Your task to perform on an android device: Set the phone to "Do not disturb". Image 0: 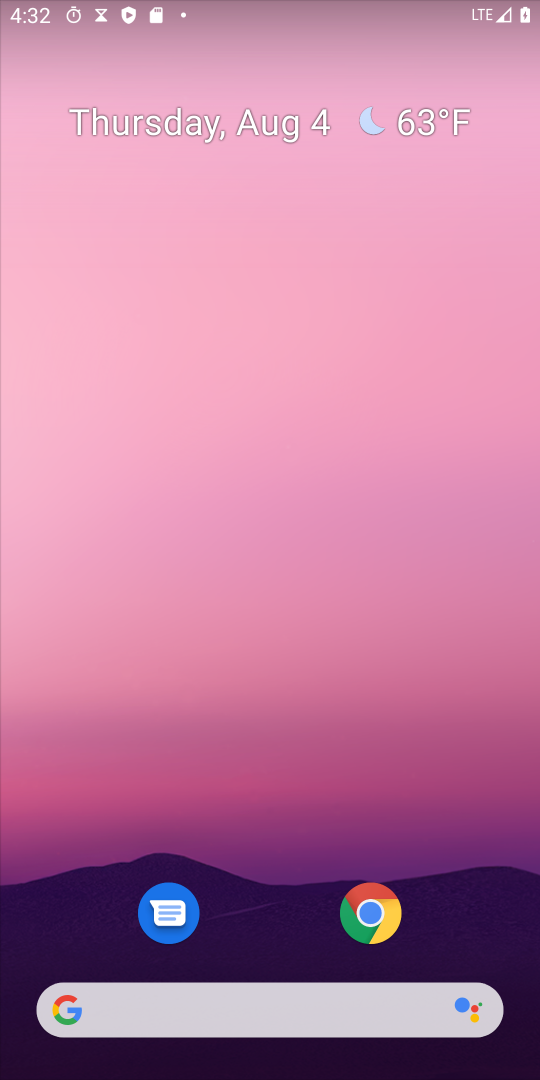
Step 0: drag from (331, 1041) to (228, 107)
Your task to perform on an android device: Set the phone to "Do not disturb". Image 1: 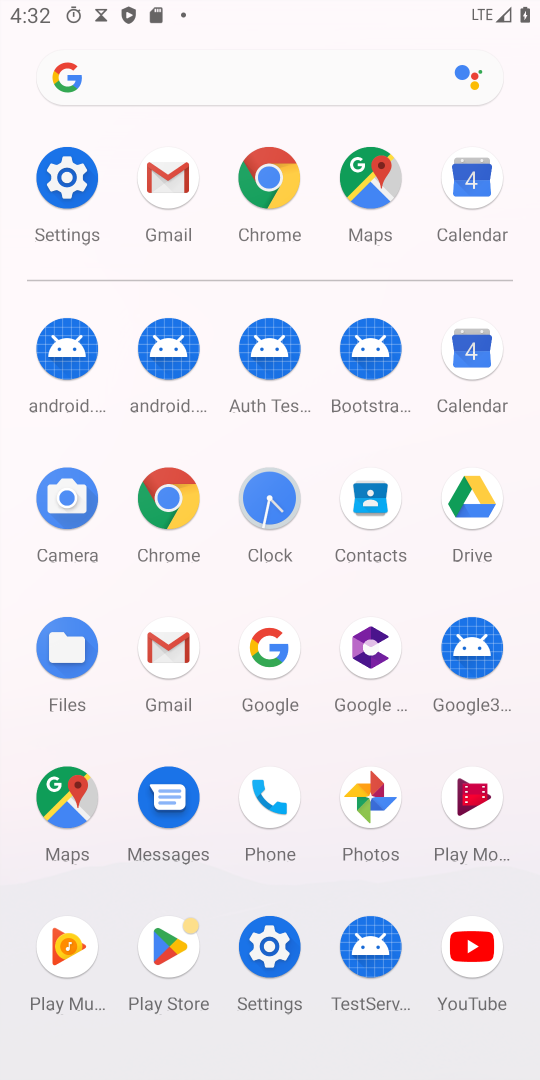
Step 1: click (76, 153)
Your task to perform on an android device: Set the phone to "Do not disturb". Image 2: 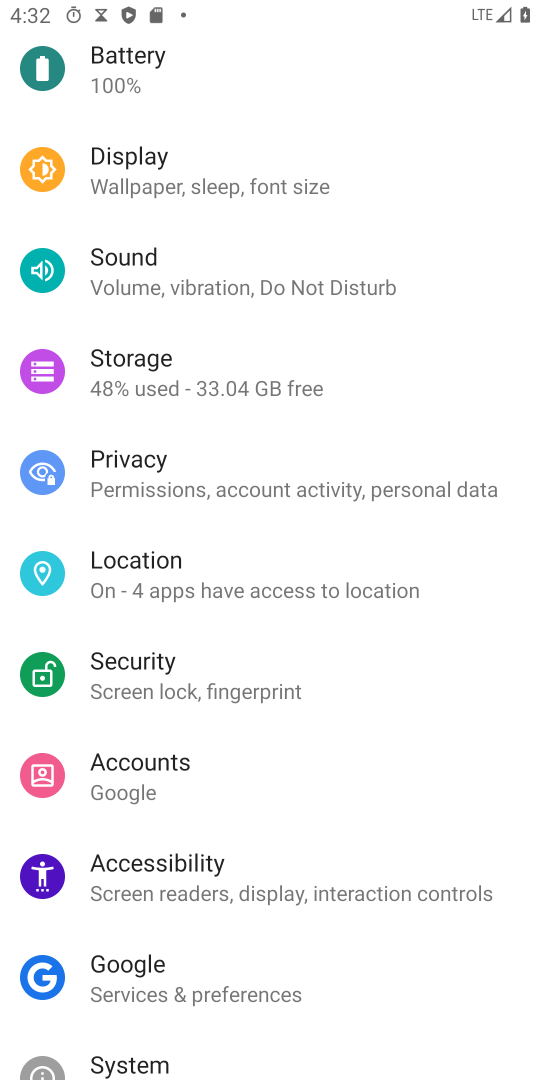
Step 2: click (258, 263)
Your task to perform on an android device: Set the phone to "Do not disturb". Image 3: 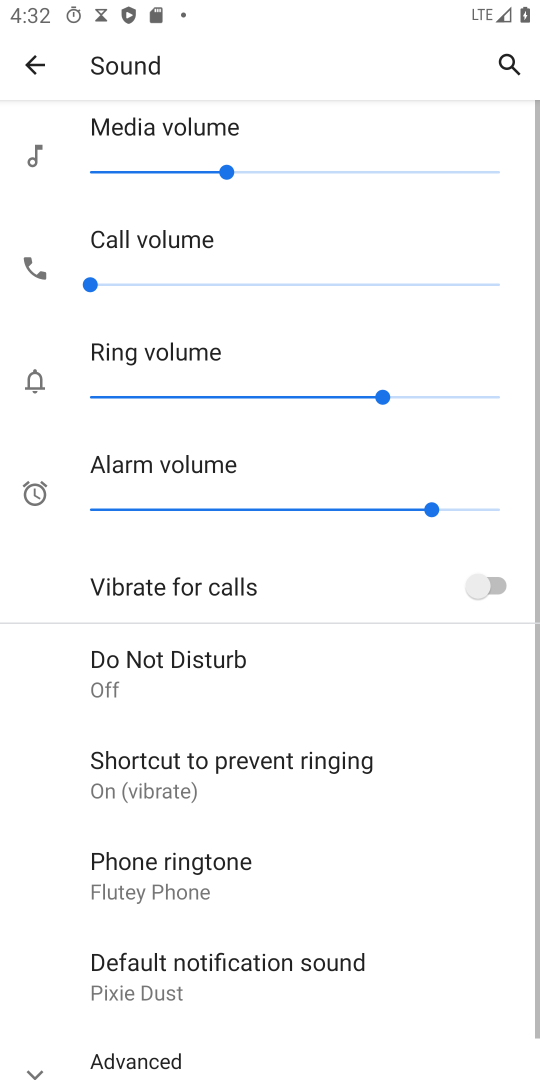
Step 3: click (267, 658)
Your task to perform on an android device: Set the phone to "Do not disturb". Image 4: 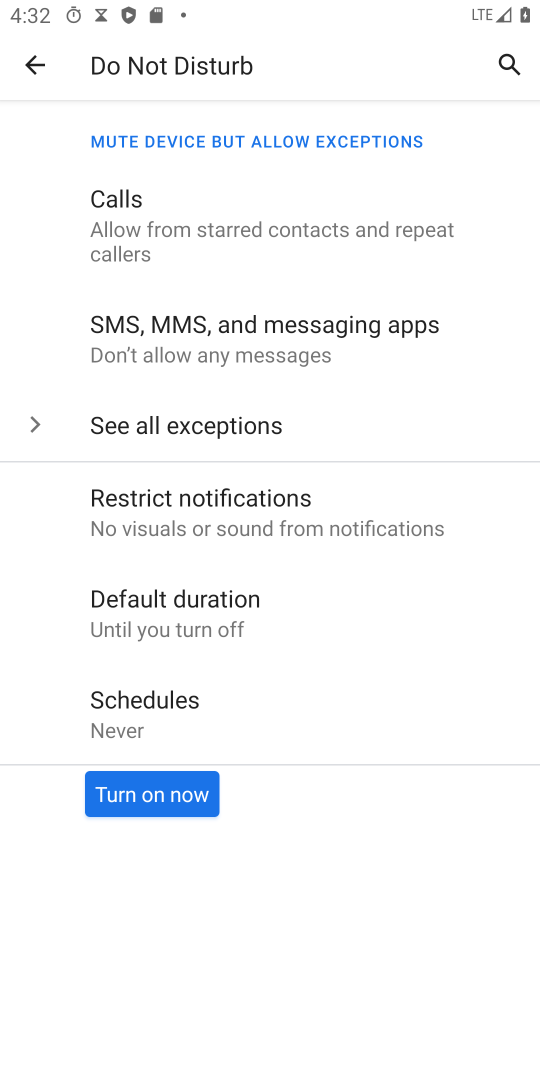
Step 4: click (158, 789)
Your task to perform on an android device: Set the phone to "Do not disturb". Image 5: 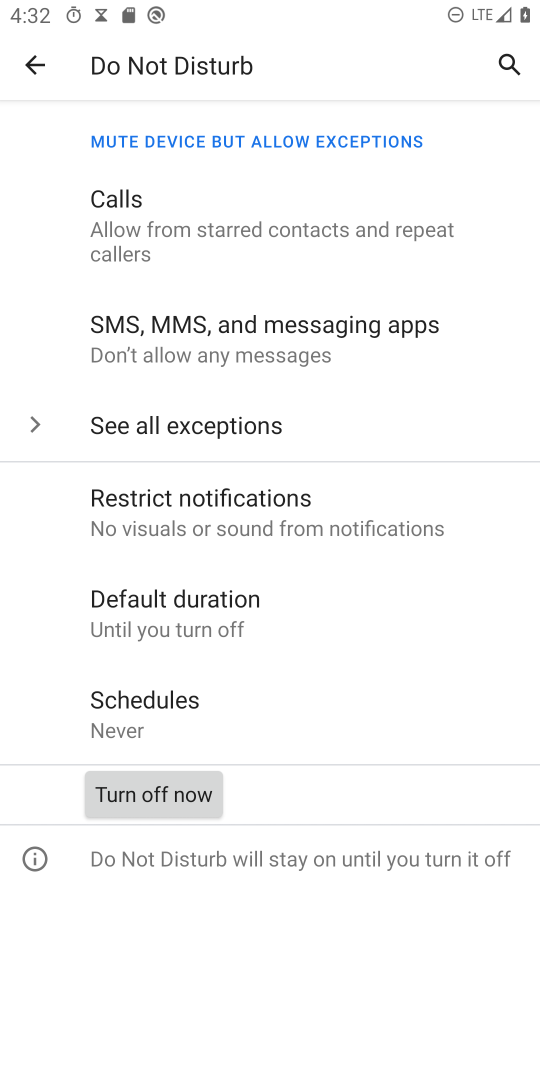
Step 5: task complete